Your task to perform on an android device: check the backup settings in the google photos Image 0: 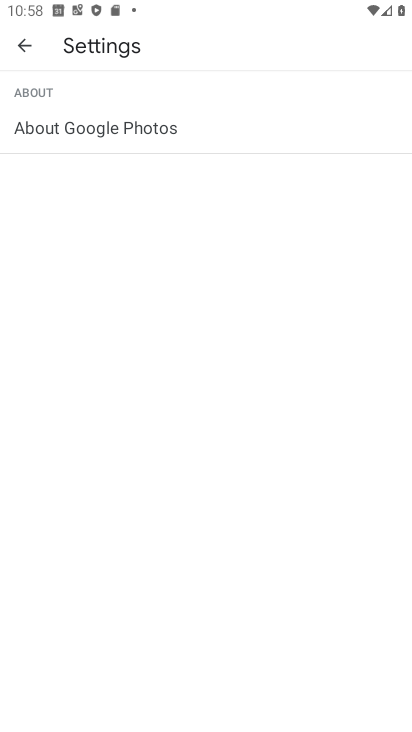
Step 0: press home button
Your task to perform on an android device: check the backup settings in the google photos Image 1: 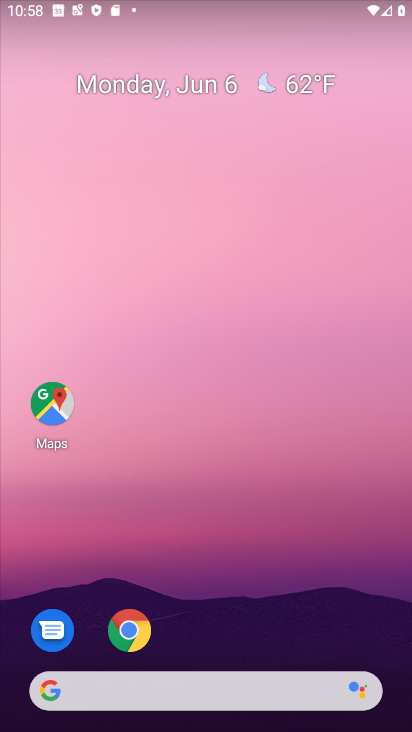
Step 1: drag from (372, 602) to (359, 186)
Your task to perform on an android device: check the backup settings in the google photos Image 2: 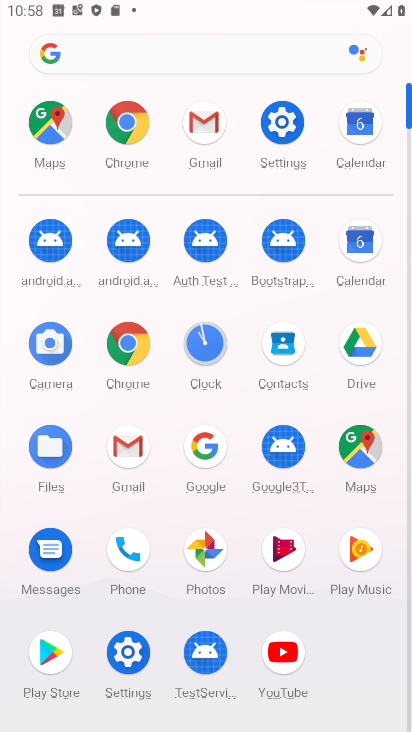
Step 2: click (210, 568)
Your task to perform on an android device: check the backup settings in the google photos Image 3: 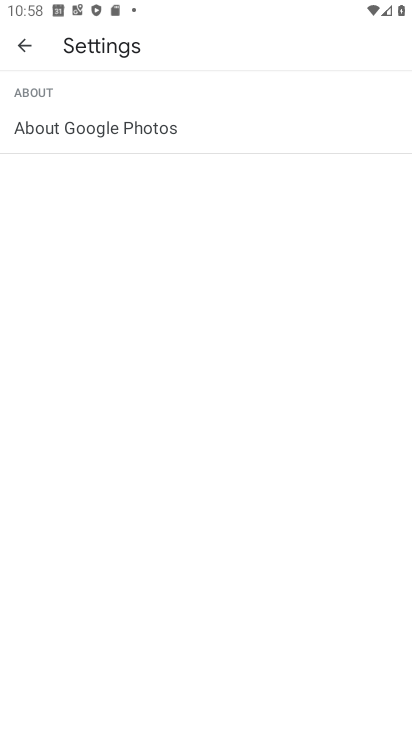
Step 3: click (28, 37)
Your task to perform on an android device: check the backup settings in the google photos Image 4: 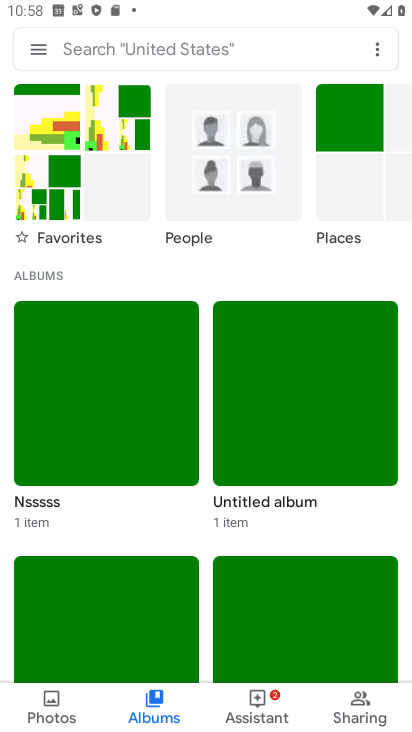
Step 4: click (53, 714)
Your task to perform on an android device: check the backup settings in the google photos Image 5: 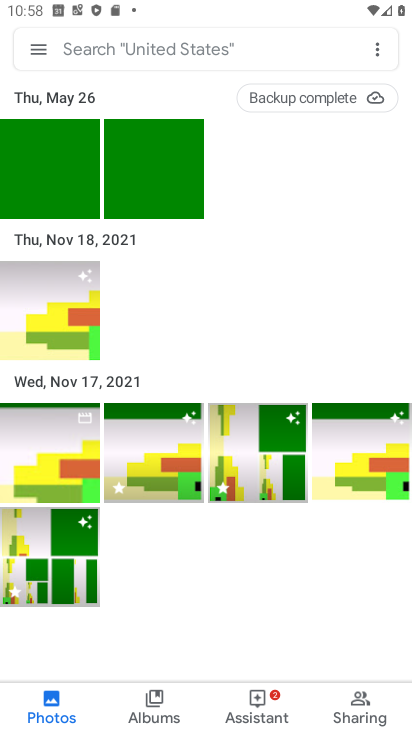
Step 5: task complete